Your task to perform on an android device: Go to notification settings Image 0: 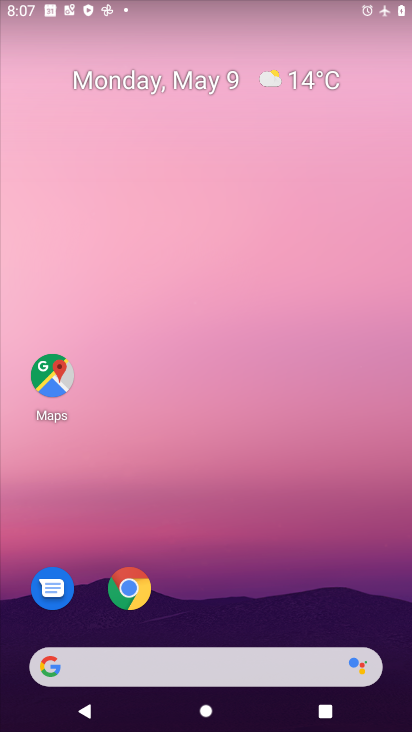
Step 0: drag from (292, 600) to (224, 53)
Your task to perform on an android device: Go to notification settings Image 1: 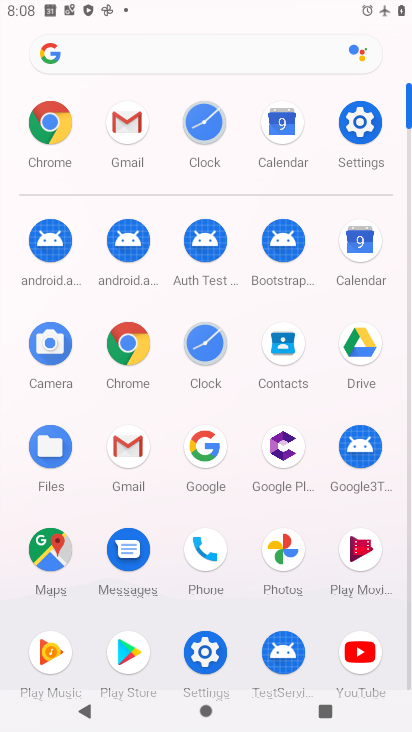
Step 1: click (189, 654)
Your task to perform on an android device: Go to notification settings Image 2: 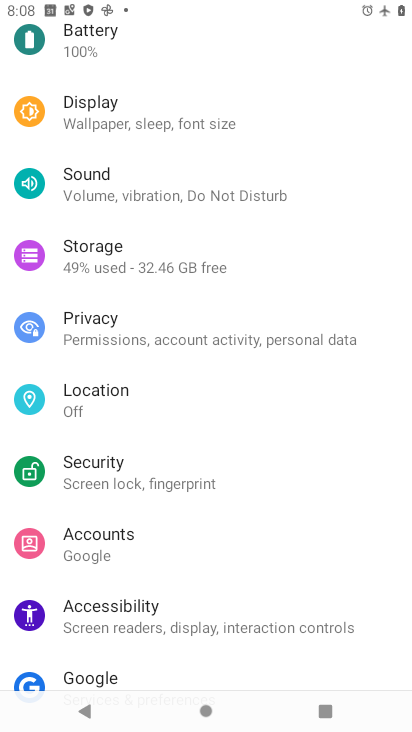
Step 2: drag from (230, 161) to (208, 591)
Your task to perform on an android device: Go to notification settings Image 3: 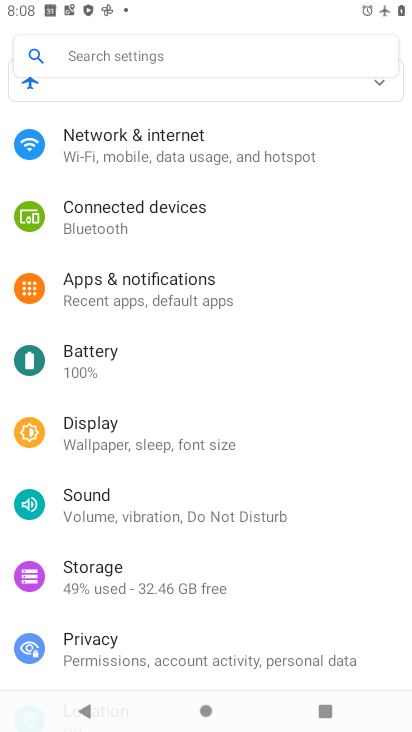
Step 3: click (168, 273)
Your task to perform on an android device: Go to notification settings Image 4: 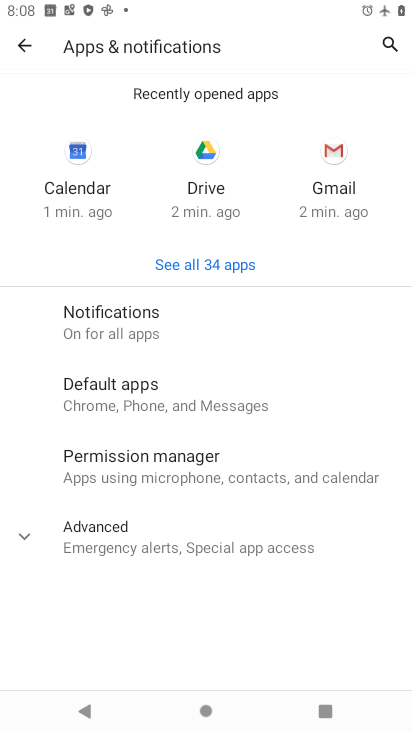
Step 4: click (160, 329)
Your task to perform on an android device: Go to notification settings Image 5: 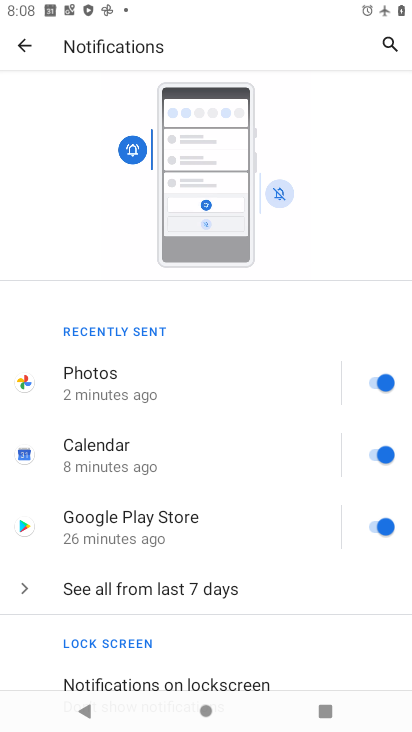
Step 5: task complete